Your task to perform on an android device: set the stopwatch Image 0: 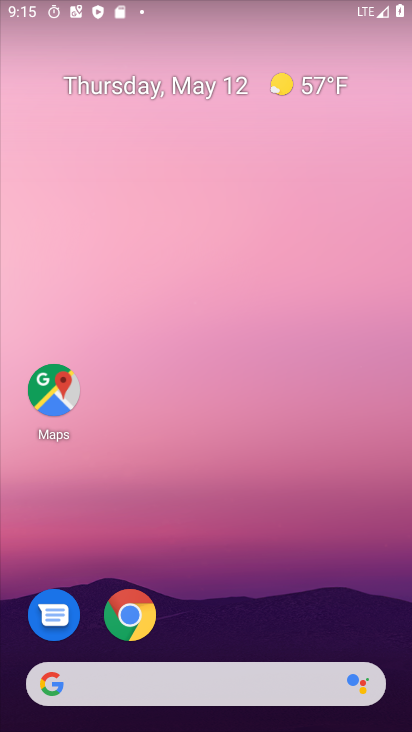
Step 0: drag from (234, 534) to (244, 39)
Your task to perform on an android device: set the stopwatch Image 1: 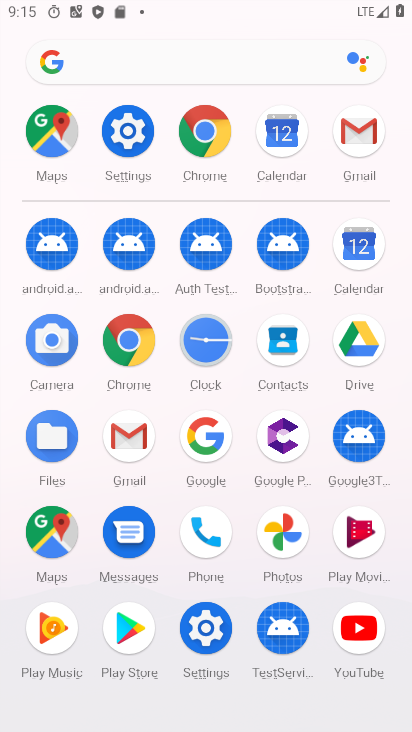
Step 1: drag from (12, 470) to (11, 166)
Your task to perform on an android device: set the stopwatch Image 2: 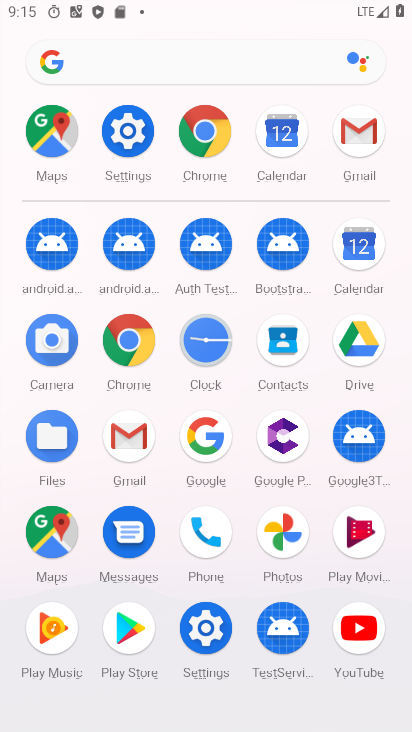
Step 2: drag from (14, 557) to (5, 320)
Your task to perform on an android device: set the stopwatch Image 3: 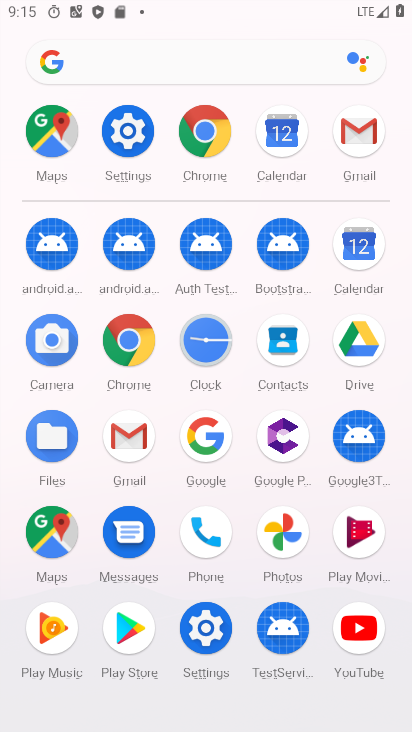
Step 3: click (204, 343)
Your task to perform on an android device: set the stopwatch Image 4: 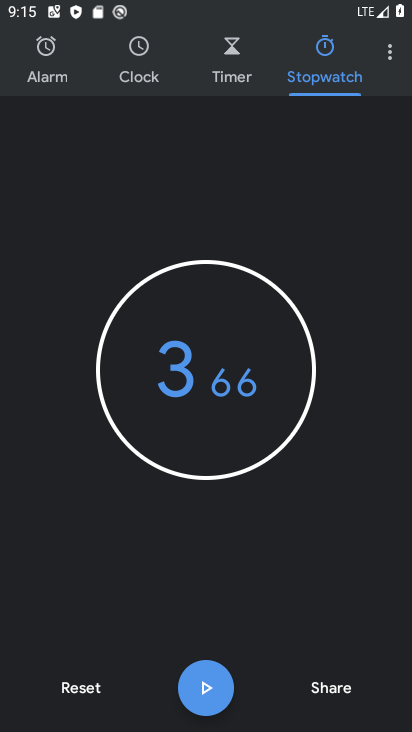
Step 4: task complete